Your task to perform on an android device: turn off improve location accuracy Image 0: 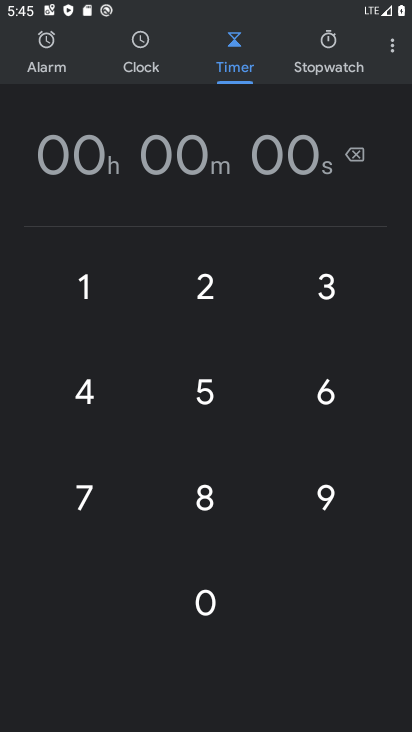
Step 0: press home button
Your task to perform on an android device: turn off improve location accuracy Image 1: 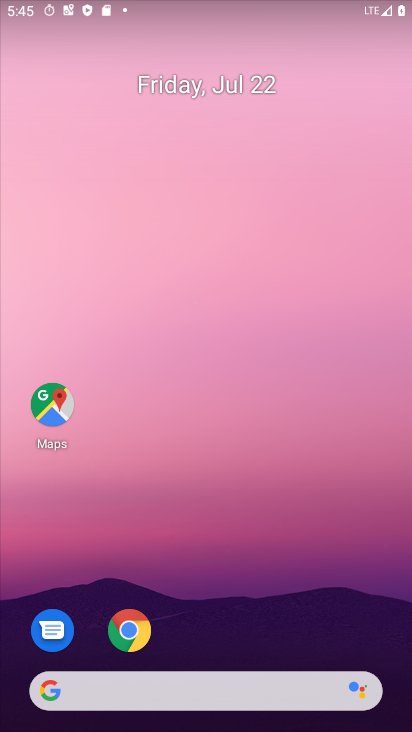
Step 1: drag from (230, 702) to (114, 7)
Your task to perform on an android device: turn off improve location accuracy Image 2: 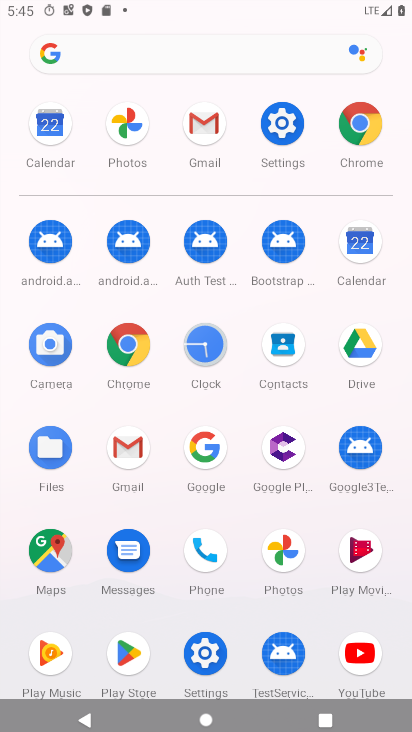
Step 2: click (273, 120)
Your task to perform on an android device: turn off improve location accuracy Image 3: 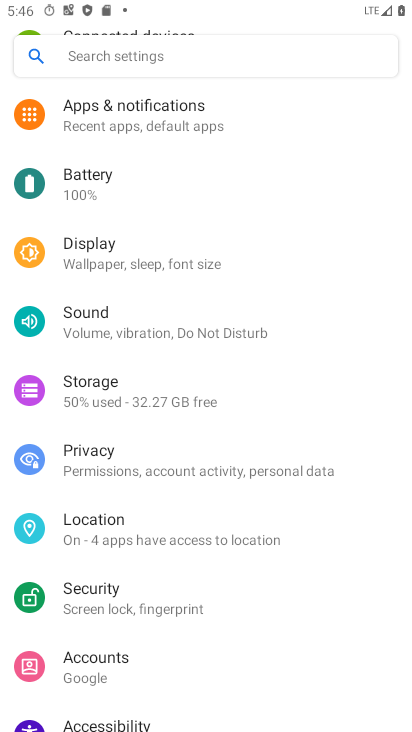
Step 3: click (147, 525)
Your task to perform on an android device: turn off improve location accuracy Image 4: 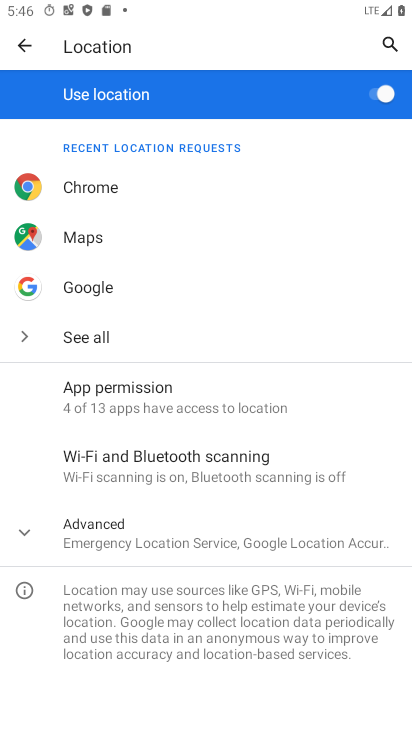
Step 4: click (179, 529)
Your task to perform on an android device: turn off improve location accuracy Image 5: 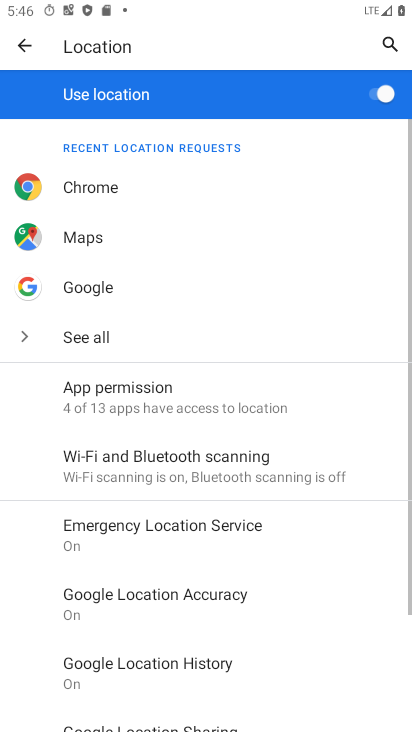
Step 5: click (210, 598)
Your task to perform on an android device: turn off improve location accuracy Image 6: 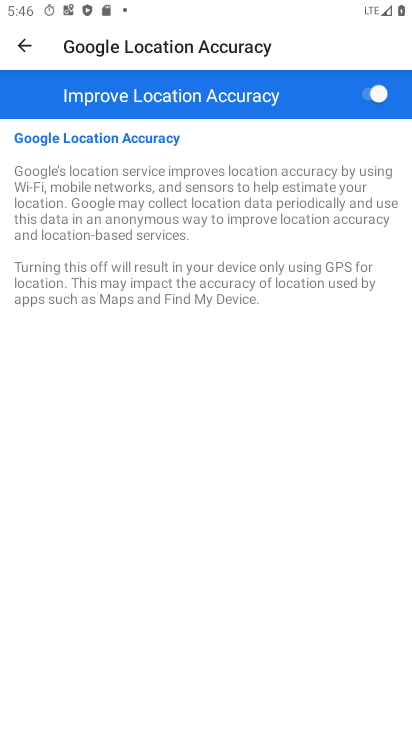
Step 6: click (372, 94)
Your task to perform on an android device: turn off improve location accuracy Image 7: 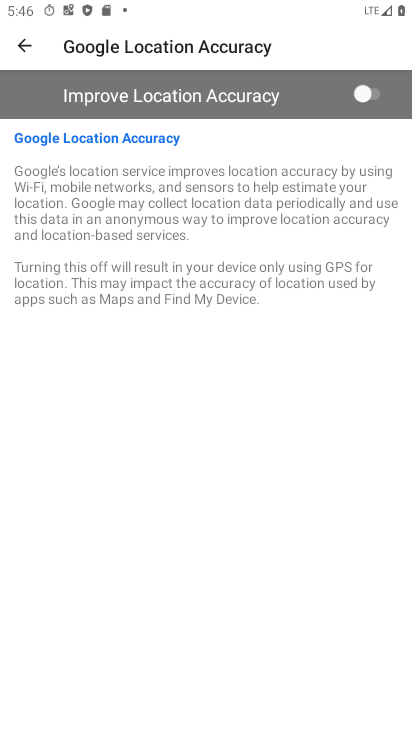
Step 7: task complete